Your task to perform on an android device: clear all cookies in the chrome app Image 0: 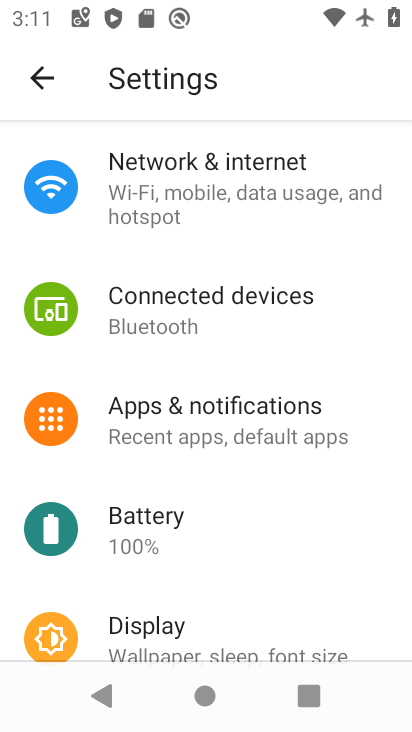
Step 0: press home button
Your task to perform on an android device: clear all cookies in the chrome app Image 1: 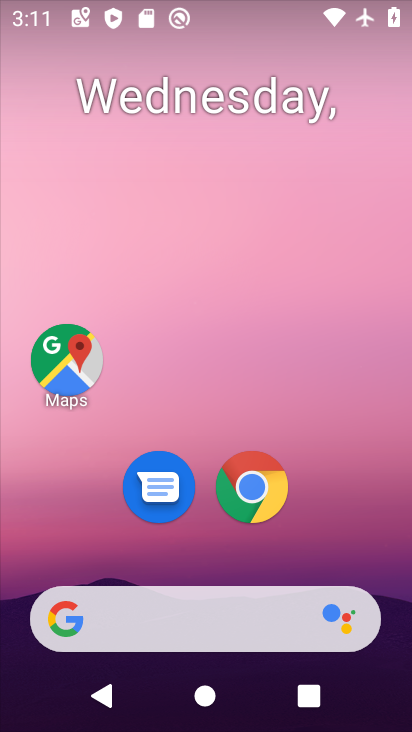
Step 1: drag from (347, 532) to (386, 44)
Your task to perform on an android device: clear all cookies in the chrome app Image 2: 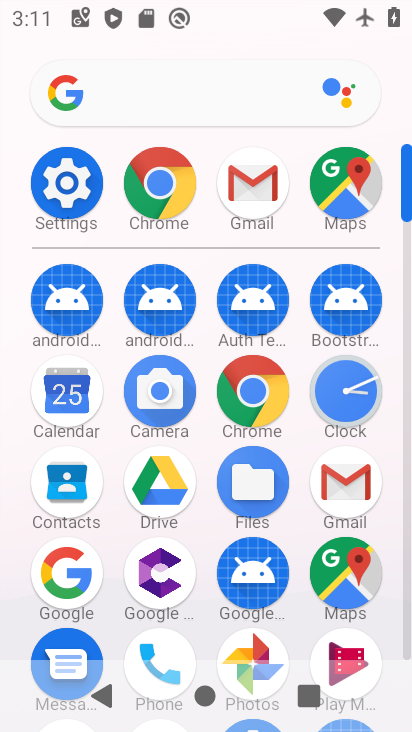
Step 2: click (132, 195)
Your task to perform on an android device: clear all cookies in the chrome app Image 3: 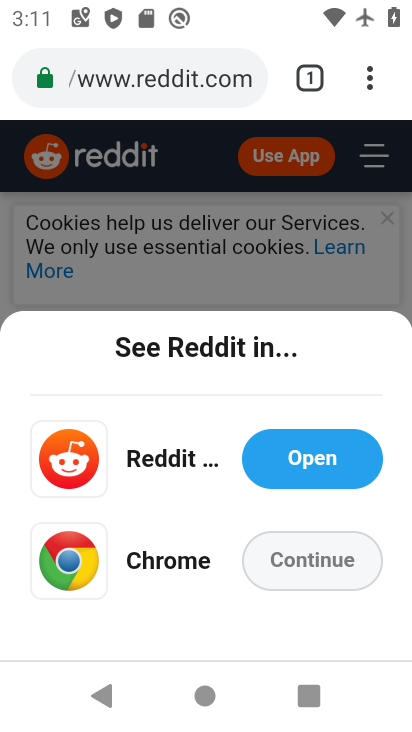
Step 3: drag from (375, 81) to (98, 439)
Your task to perform on an android device: clear all cookies in the chrome app Image 4: 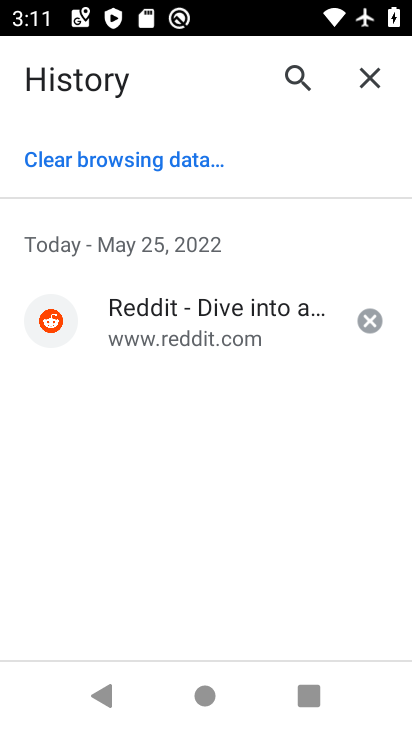
Step 4: click (153, 159)
Your task to perform on an android device: clear all cookies in the chrome app Image 5: 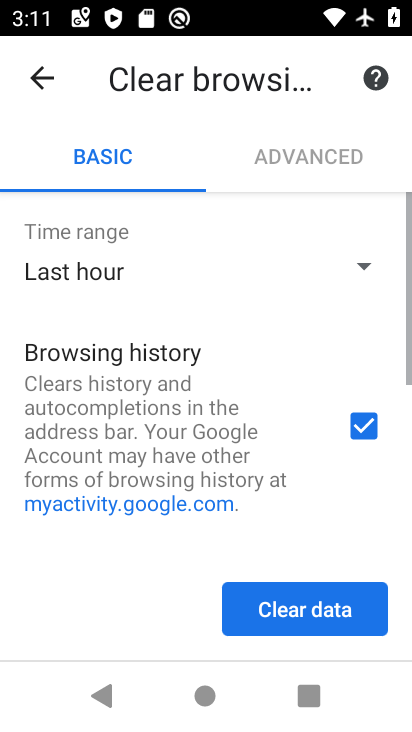
Step 5: click (299, 620)
Your task to perform on an android device: clear all cookies in the chrome app Image 6: 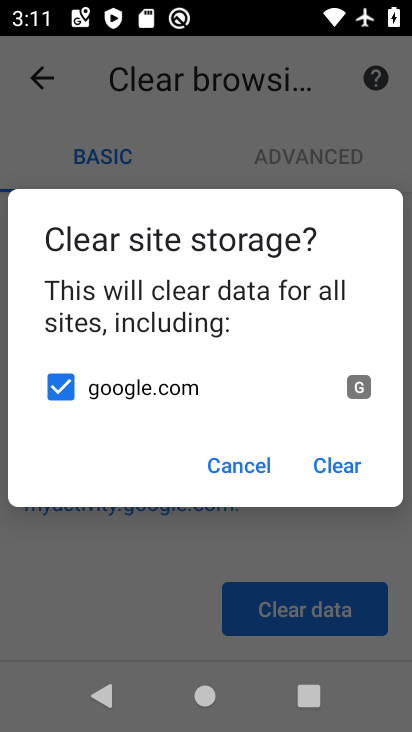
Step 6: click (361, 437)
Your task to perform on an android device: clear all cookies in the chrome app Image 7: 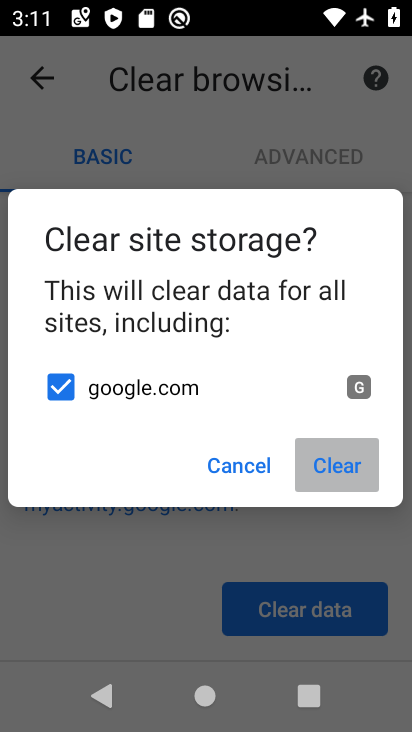
Step 7: click (357, 462)
Your task to perform on an android device: clear all cookies in the chrome app Image 8: 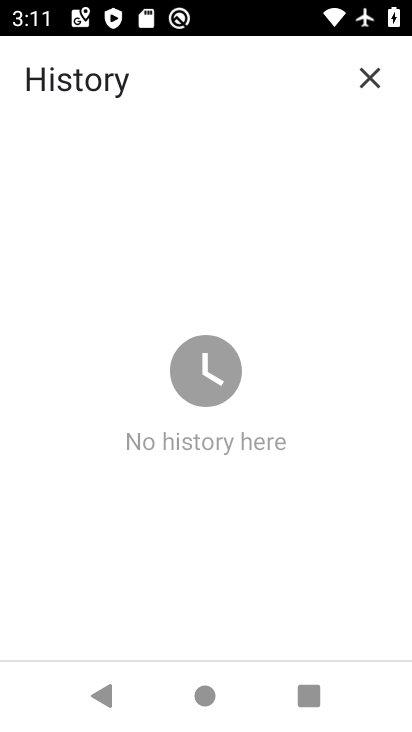
Step 8: task complete